Your task to perform on an android device: find snoozed emails in the gmail app Image 0: 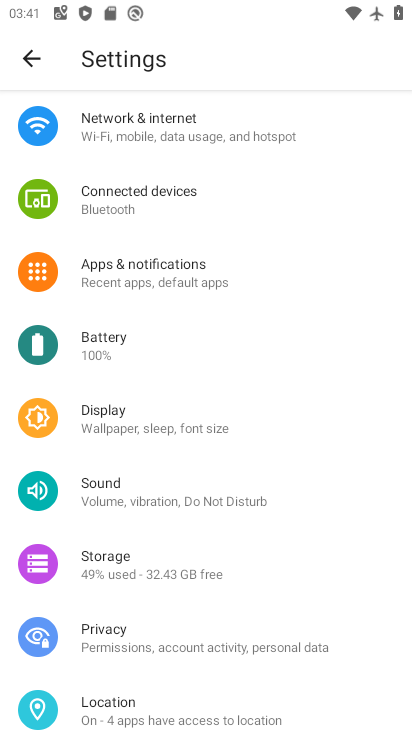
Step 0: press home button
Your task to perform on an android device: find snoozed emails in the gmail app Image 1: 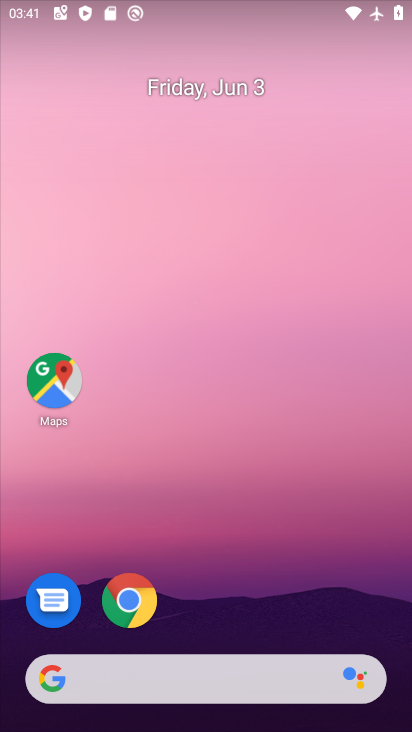
Step 1: drag from (209, 626) to (336, 32)
Your task to perform on an android device: find snoozed emails in the gmail app Image 2: 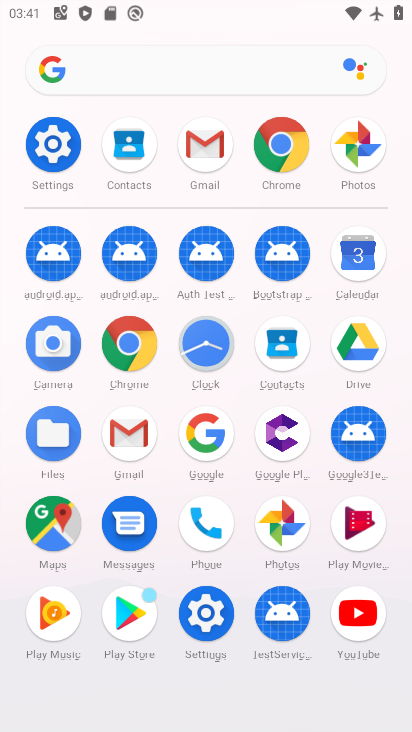
Step 2: click (139, 476)
Your task to perform on an android device: find snoozed emails in the gmail app Image 3: 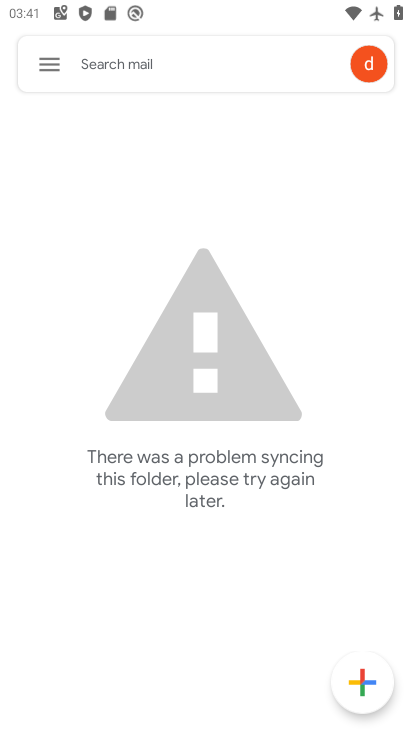
Step 3: click (61, 65)
Your task to perform on an android device: find snoozed emails in the gmail app Image 4: 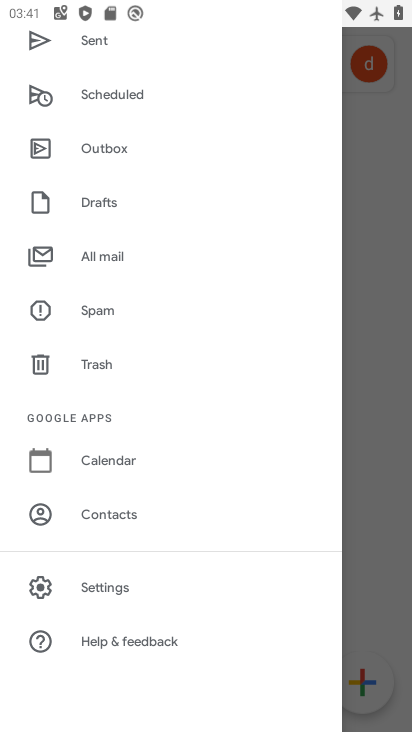
Step 4: drag from (137, 250) to (138, 517)
Your task to perform on an android device: find snoozed emails in the gmail app Image 5: 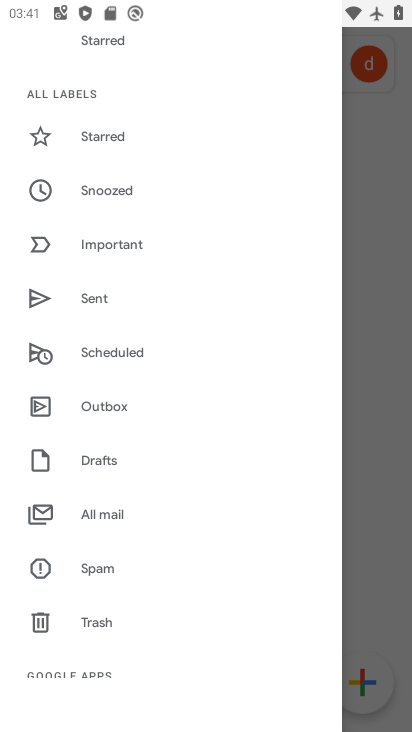
Step 5: click (117, 189)
Your task to perform on an android device: find snoozed emails in the gmail app Image 6: 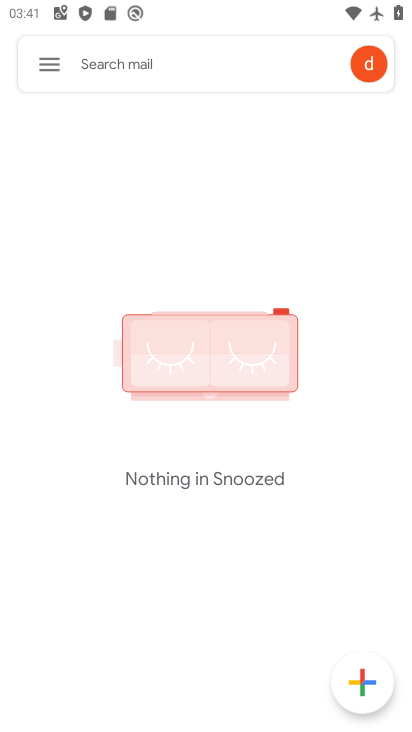
Step 6: task complete